Your task to perform on an android device: open a bookmark in the chrome app Image 0: 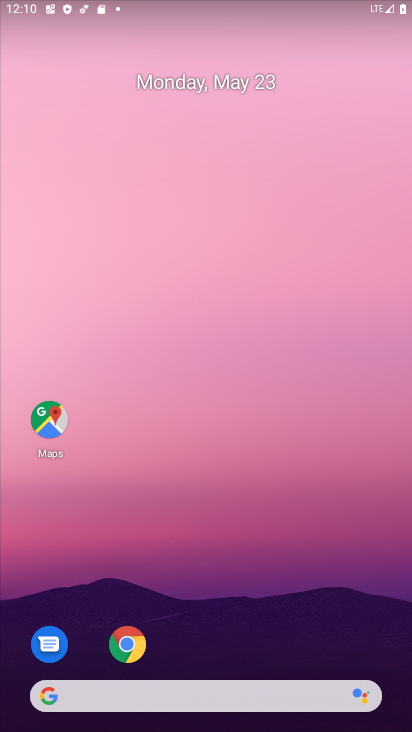
Step 0: drag from (335, 620) to (250, 49)
Your task to perform on an android device: open a bookmark in the chrome app Image 1: 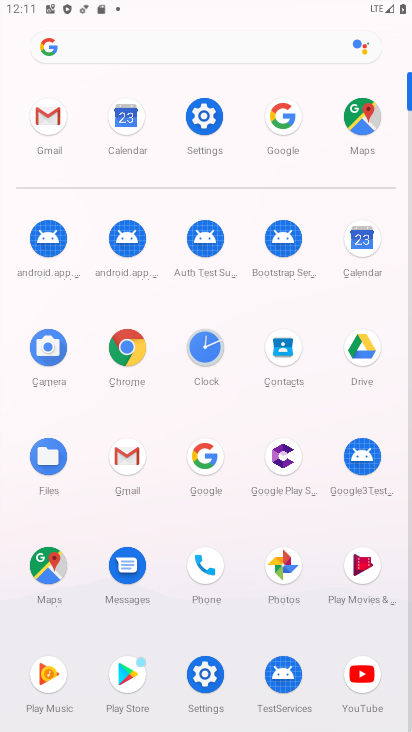
Step 1: click (130, 335)
Your task to perform on an android device: open a bookmark in the chrome app Image 2: 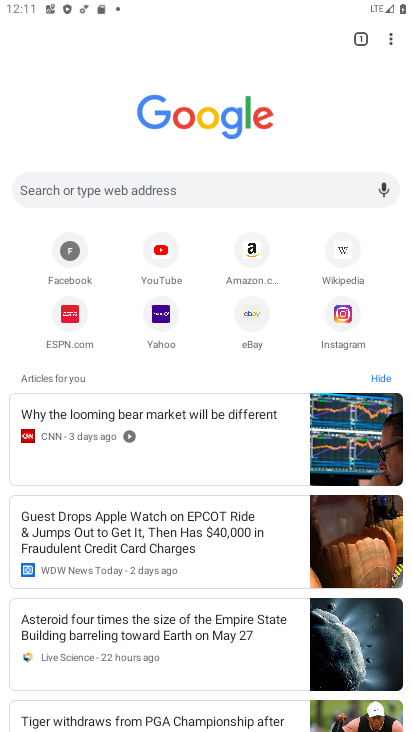
Step 2: click (396, 37)
Your task to perform on an android device: open a bookmark in the chrome app Image 3: 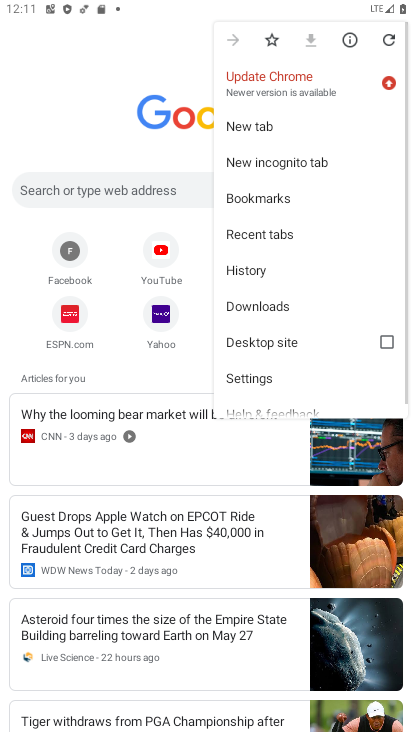
Step 3: click (264, 200)
Your task to perform on an android device: open a bookmark in the chrome app Image 4: 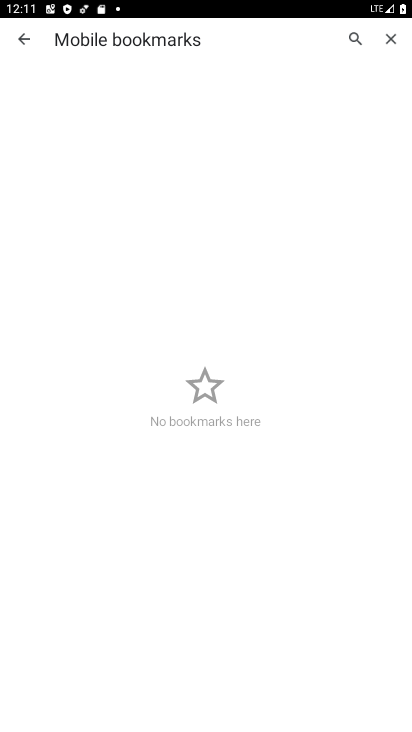
Step 4: task complete